Your task to perform on an android device: Open location settings Image 0: 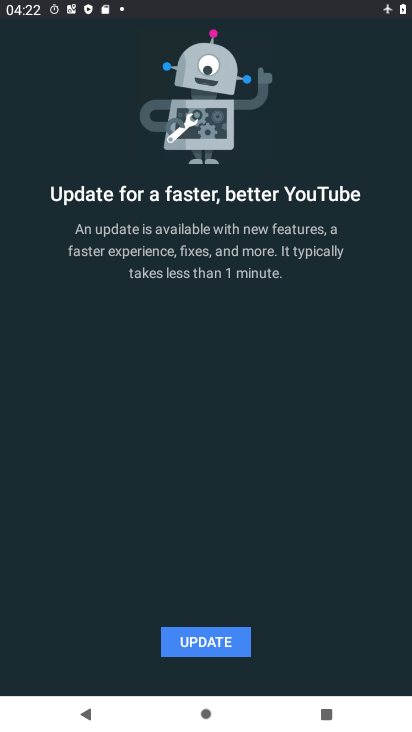
Step 0: press home button
Your task to perform on an android device: Open location settings Image 1: 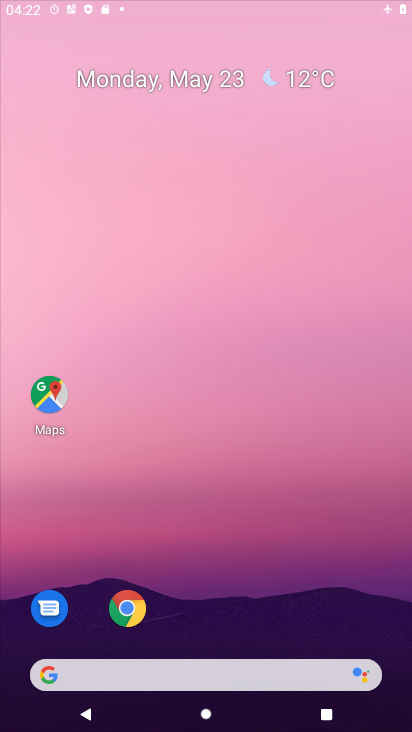
Step 1: drag from (324, 526) to (174, 6)
Your task to perform on an android device: Open location settings Image 2: 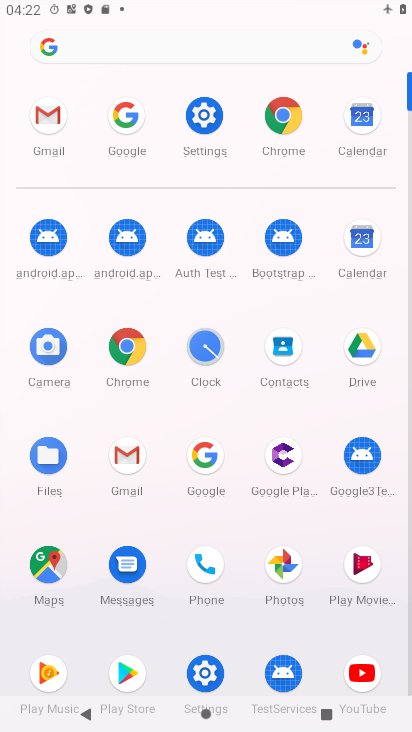
Step 2: click (199, 129)
Your task to perform on an android device: Open location settings Image 3: 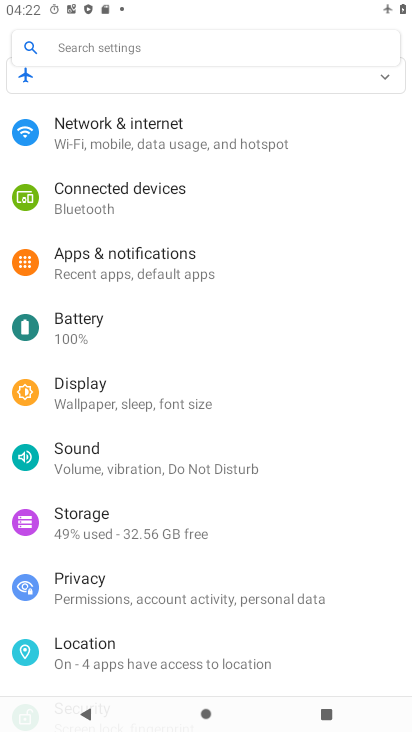
Step 3: click (222, 647)
Your task to perform on an android device: Open location settings Image 4: 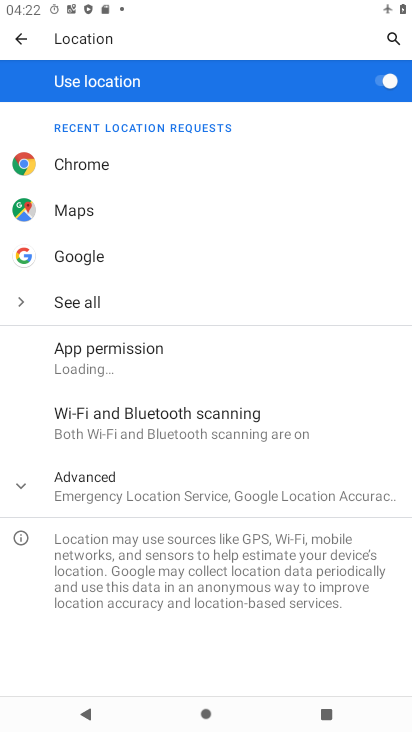
Step 4: task complete